Your task to perform on an android device: Search for Italian restaurants on Maps Image 0: 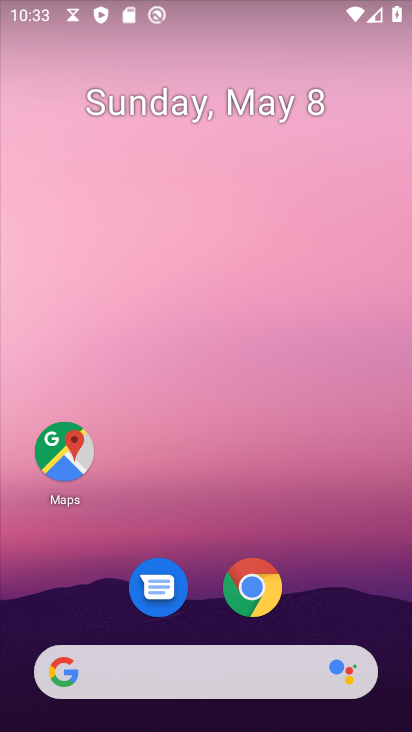
Step 0: click (59, 445)
Your task to perform on an android device: Search for Italian restaurants on Maps Image 1: 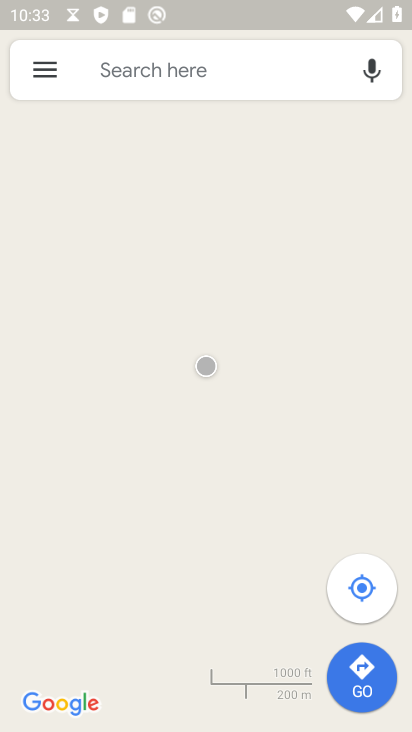
Step 1: click (204, 76)
Your task to perform on an android device: Search for Italian restaurants on Maps Image 2: 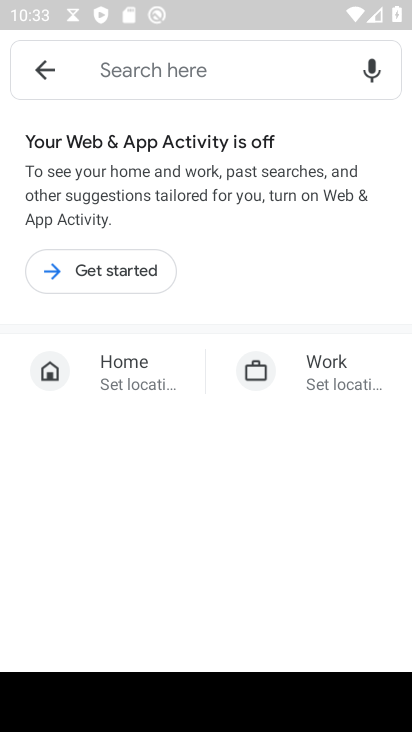
Step 2: click (205, 66)
Your task to perform on an android device: Search for Italian restaurants on Maps Image 3: 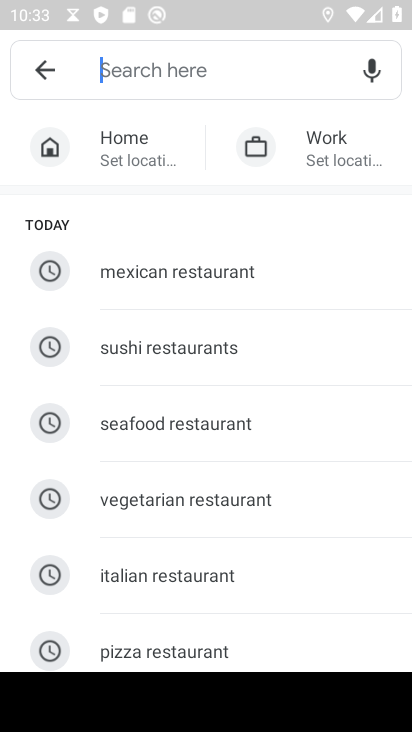
Step 3: click (159, 578)
Your task to perform on an android device: Search for Italian restaurants on Maps Image 4: 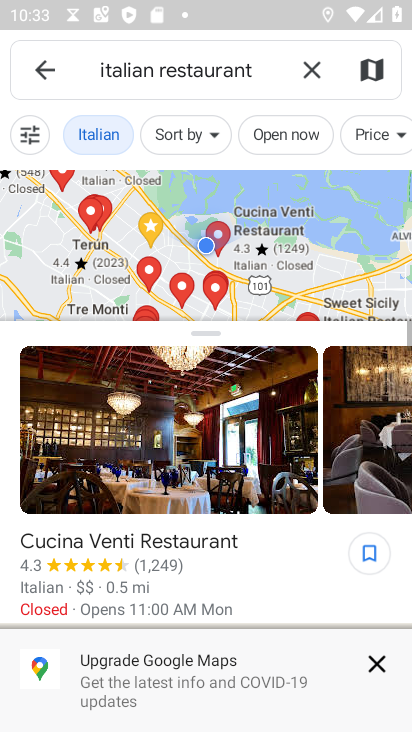
Step 4: task complete